Your task to perform on an android device: check android version Image 0: 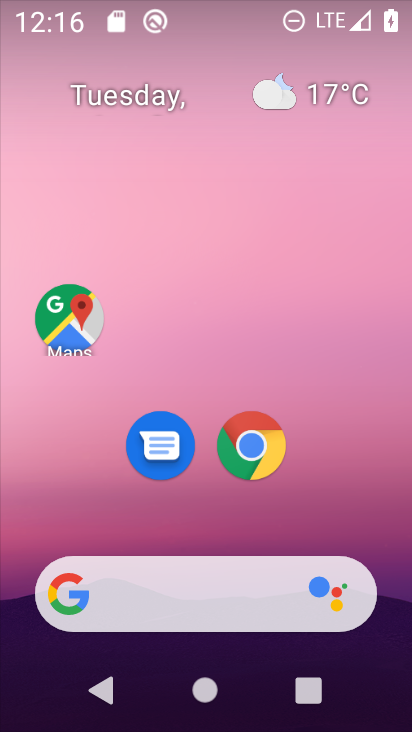
Step 0: drag from (391, 490) to (377, 72)
Your task to perform on an android device: check android version Image 1: 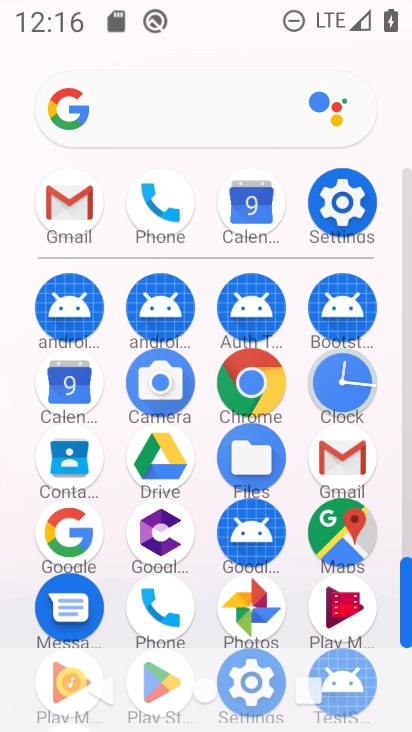
Step 1: click (337, 195)
Your task to perform on an android device: check android version Image 2: 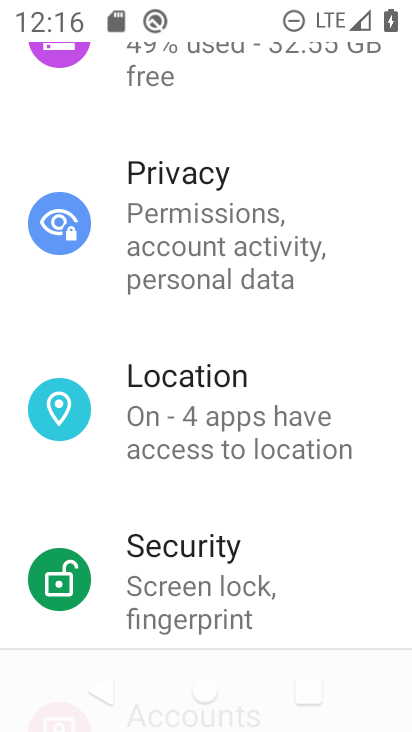
Step 2: drag from (338, 524) to (282, 90)
Your task to perform on an android device: check android version Image 3: 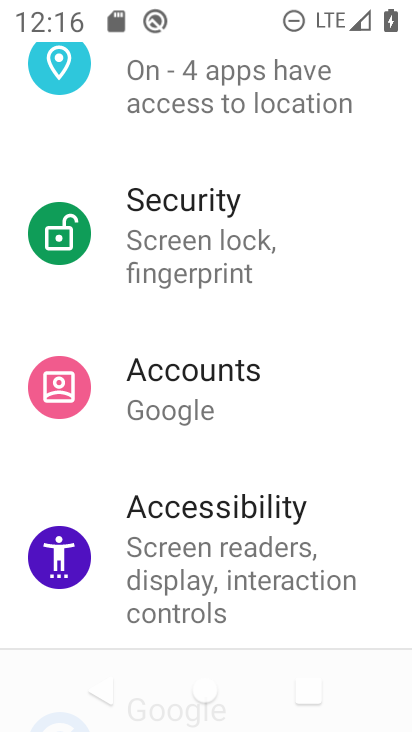
Step 3: drag from (379, 615) to (330, 40)
Your task to perform on an android device: check android version Image 4: 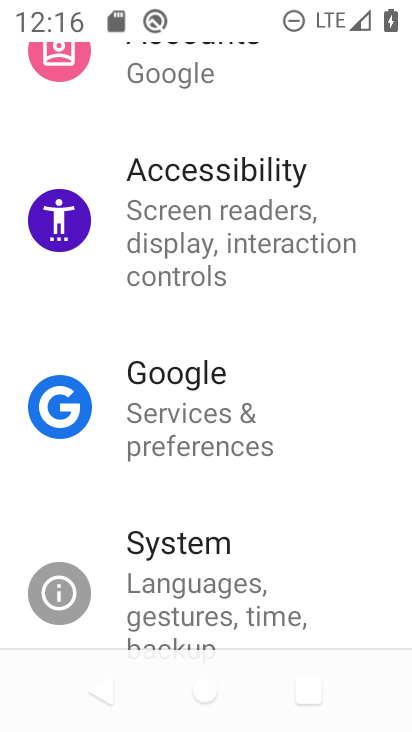
Step 4: drag from (312, 627) to (248, 109)
Your task to perform on an android device: check android version Image 5: 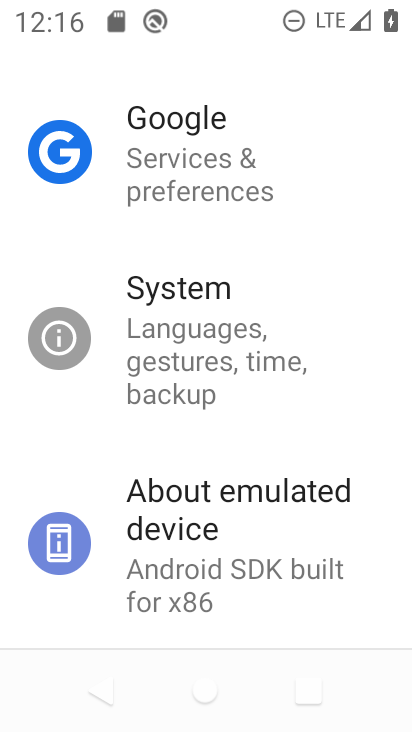
Step 5: click (184, 550)
Your task to perform on an android device: check android version Image 6: 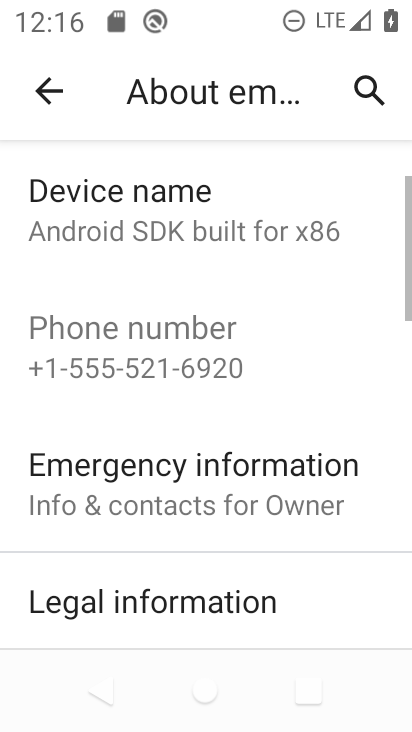
Step 6: drag from (324, 551) to (288, 246)
Your task to perform on an android device: check android version Image 7: 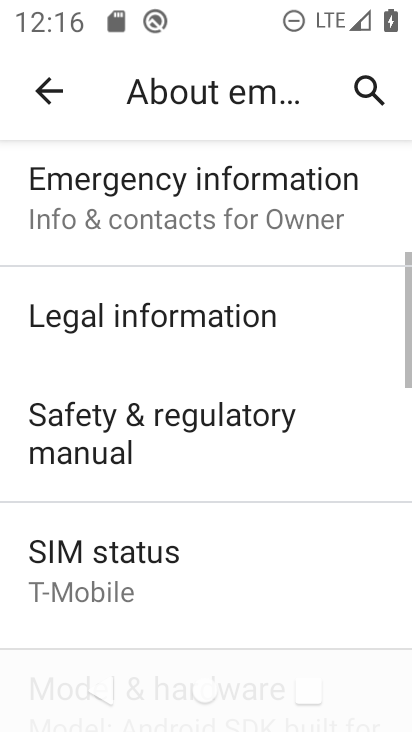
Step 7: drag from (290, 582) to (277, 162)
Your task to perform on an android device: check android version Image 8: 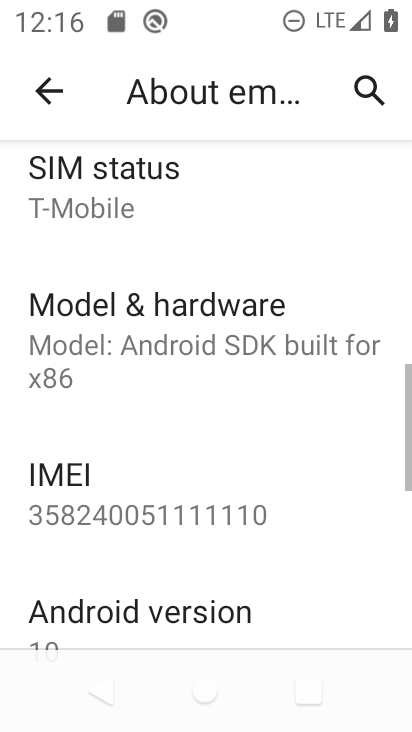
Step 8: drag from (276, 577) to (243, 269)
Your task to perform on an android device: check android version Image 9: 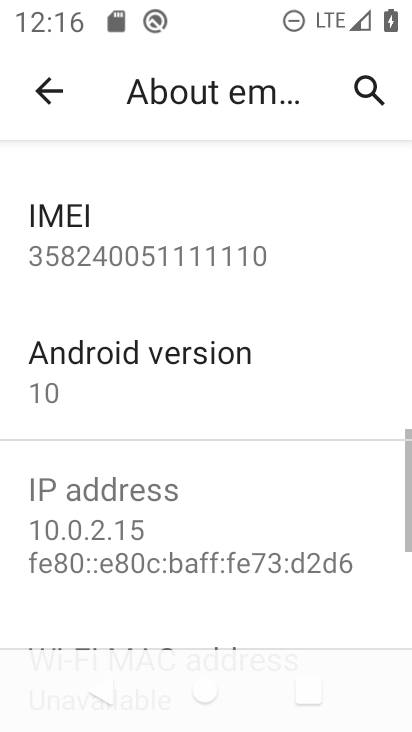
Step 9: click (95, 361)
Your task to perform on an android device: check android version Image 10: 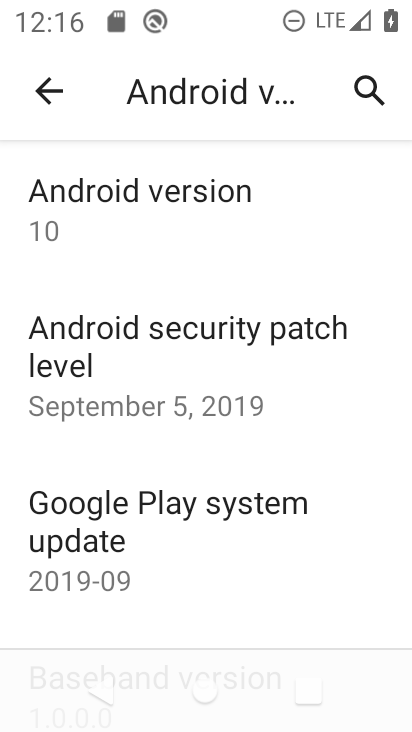
Step 10: task complete